Your task to perform on an android device: set the timer Image 0: 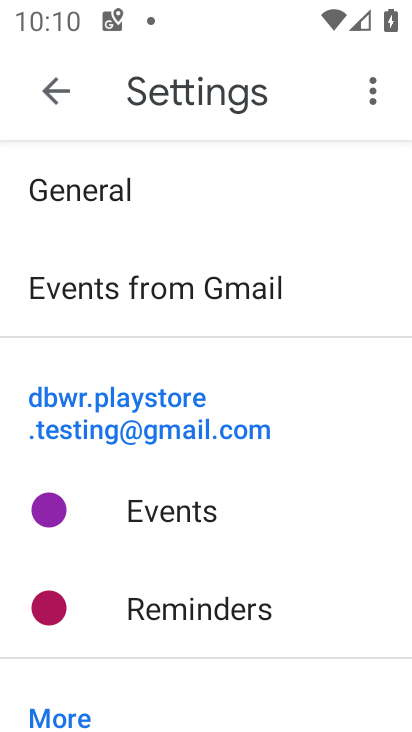
Step 0: press home button
Your task to perform on an android device: set the timer Image 1: 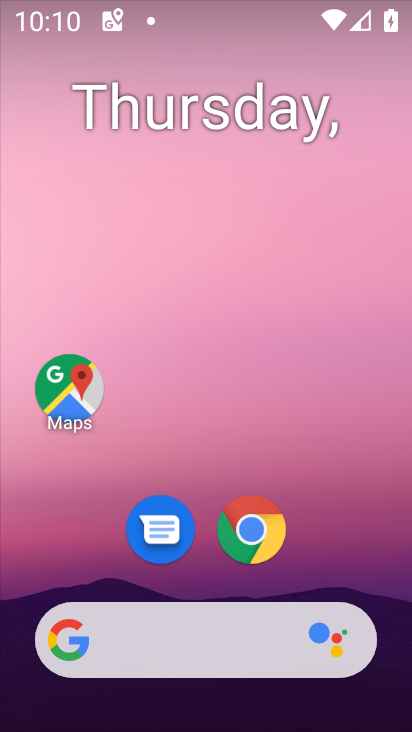
Step 1: drag from (236, 690) to (386, 231)
Your task to perform on an android device: set the timer Image 2: 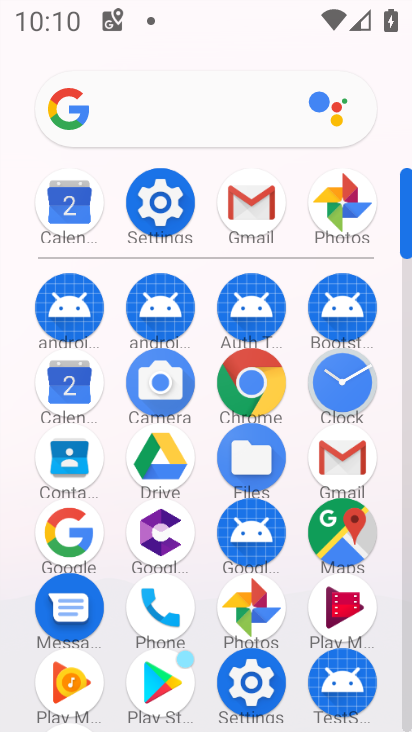
Step 2: click (361, 374)
Your task to perform on an android device: set the timer Image 3: 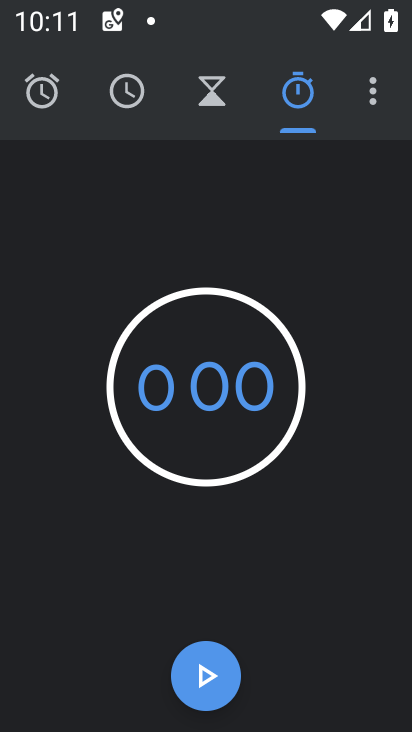
Step 3: task complete